Your task to perform on an android device: turn off airplane mode Image 0: 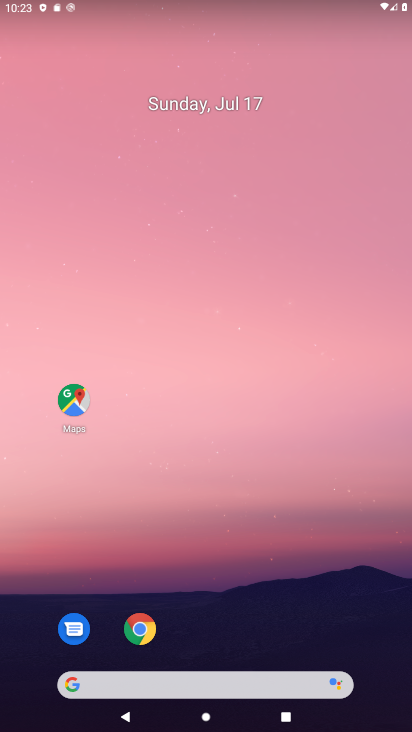
Step 0: drag from (200, 655) to (176, 43)
Your task to perform on an android device: turn off airplane mode Image 1: 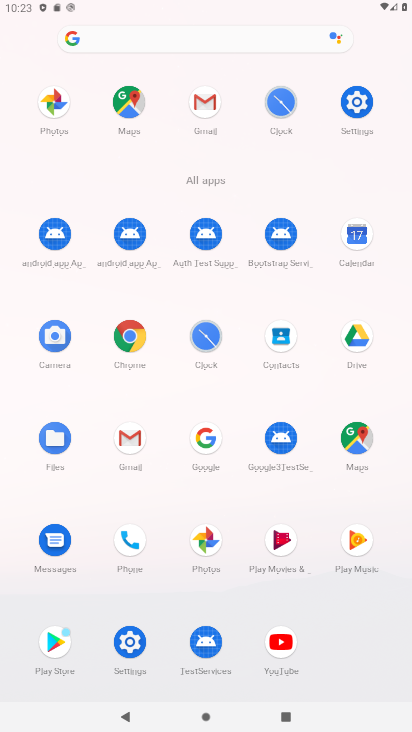
Step 1: click (356, 107)
Your task to perform on an android device: turn off airplane mode Image 2: 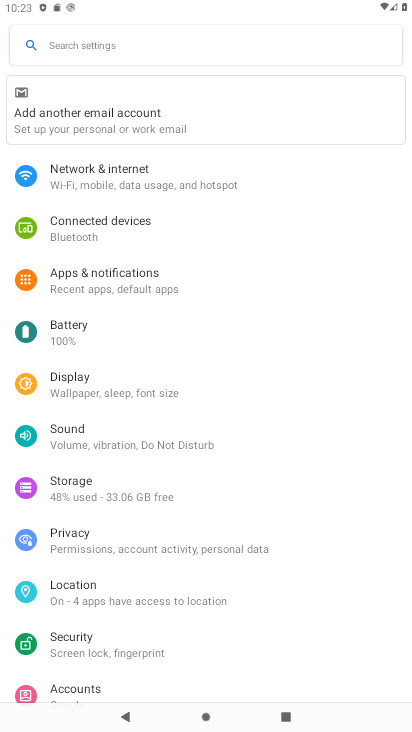
Step 2: click (107, 165)
Your task to perform on an android device: turn off airplane mode Image 3: 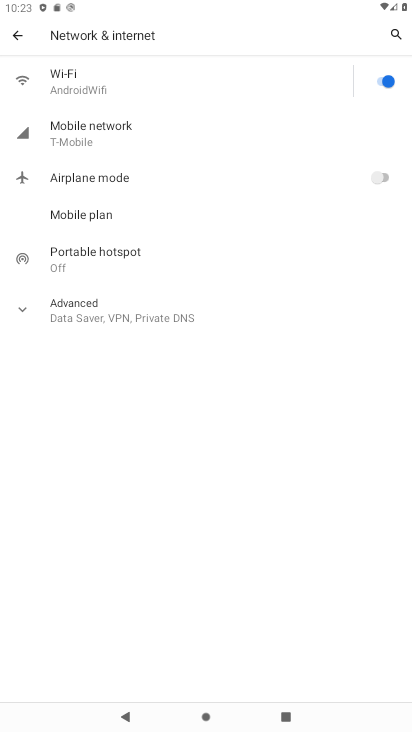
Step 3: task complete